Your task to perform on an android device: change alarm snooze length Image 0: 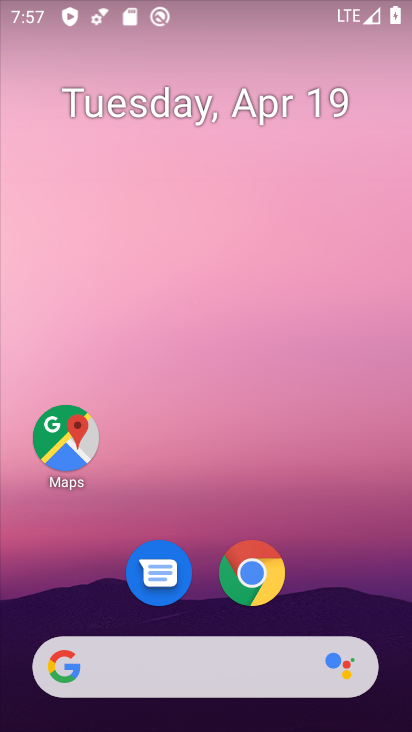
Step 0: drag from (316, 586) to (315, 163)
Your task to perform on an android device: change alarm snooze length Image 1: 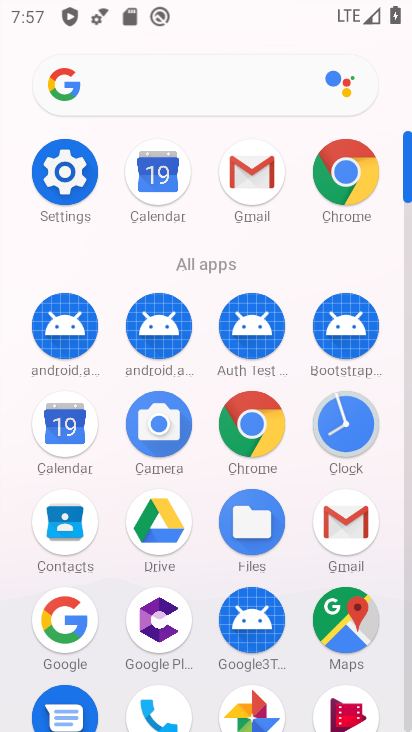
Step 1: click (346, 424)
Your task to perform on an android device: change alarm snooze length Image 2: 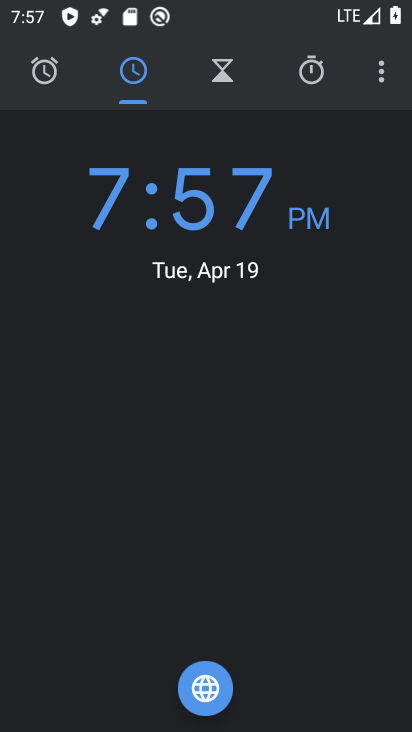
Step 2: click (381, 75)
Your task to perform on an android device: change alarm snooze length Image 3: 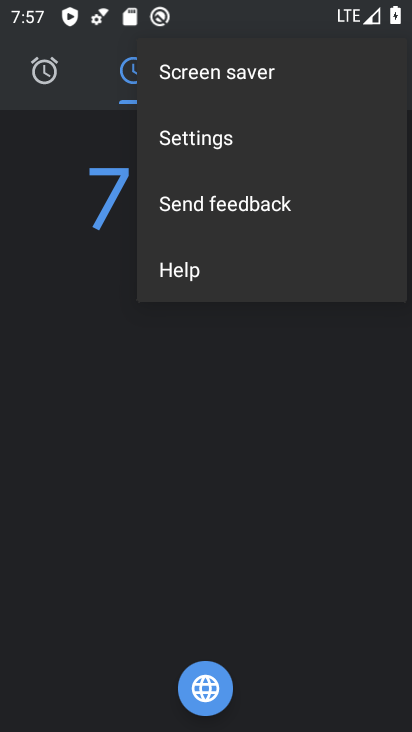
Step 3: click (196, 152)
Your task to perform on an android device: change alarm snooze length Image 4: 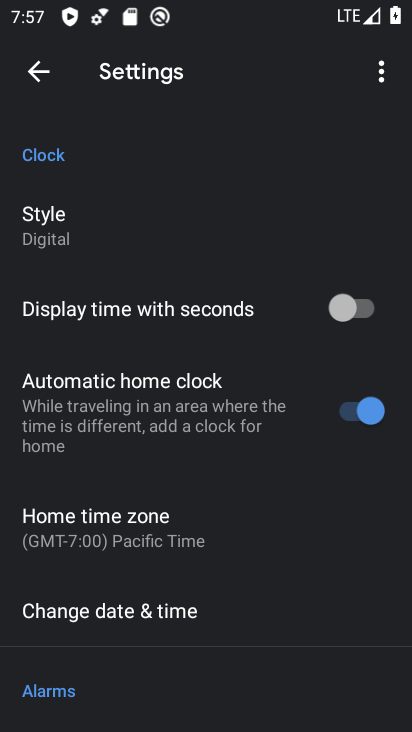
Step 4: drag from (199, 631) to (194, 137)
Your task to perform on an android device: change alarm snooze length Image 5: 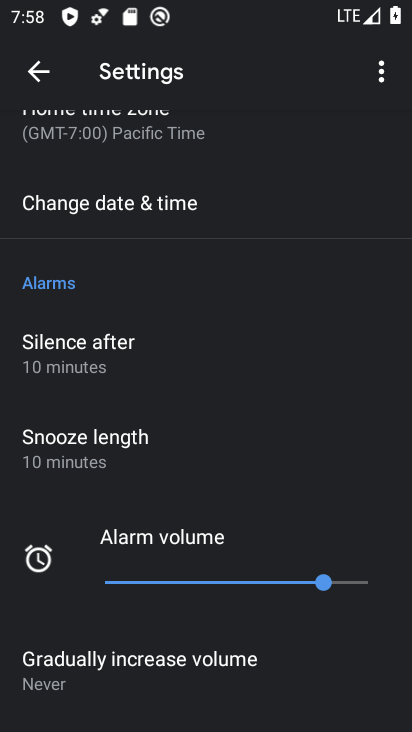
Step 5: click (85, 453)
Your task to perform on an android device: change alarm snooze length Image 6: 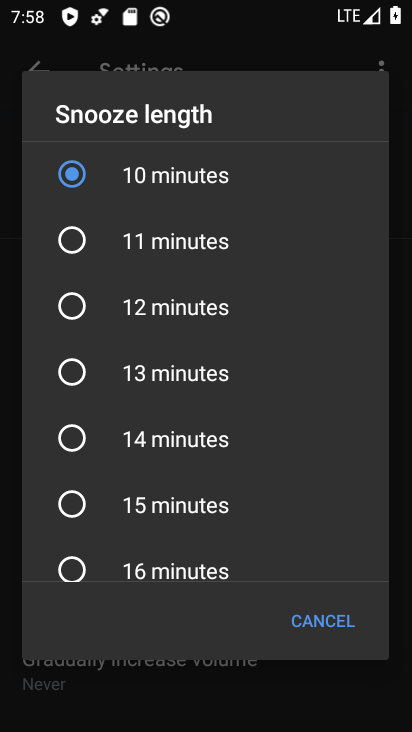
Step 6: click (150, 254)
Your task to perform on an android device: change alarm snooze length Image 7: 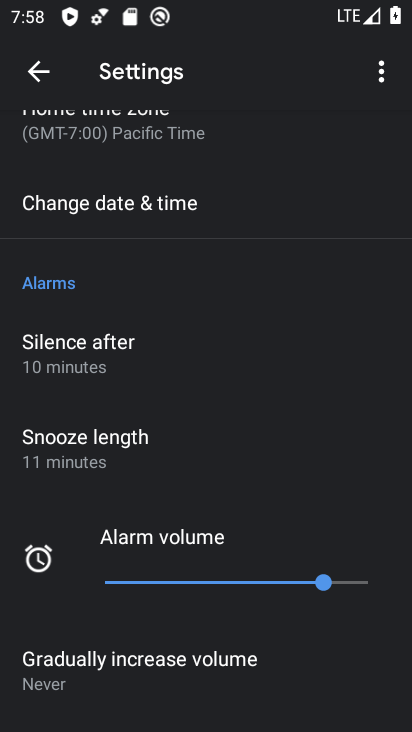
Step 7: task complete